Your task to perform on an android device: change text size in settings app Image 0: 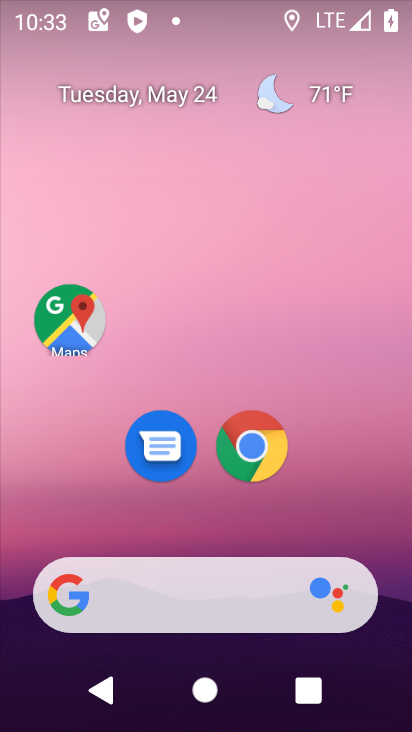
Step 0: drag from (343, 516) to (304, 49)
Your task to perform on an android device: change text size in settings app Image 1: 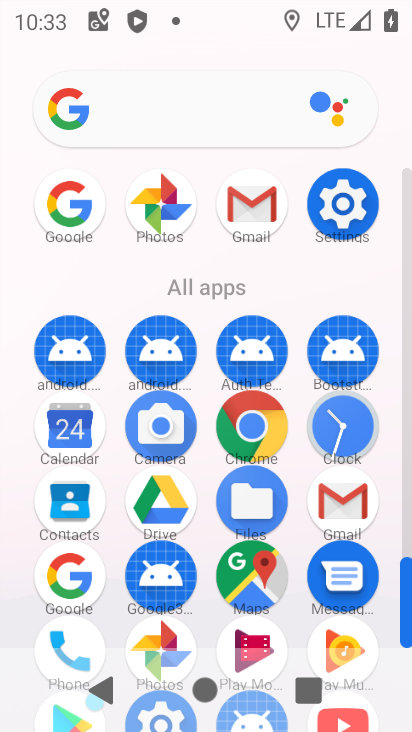
Step 1: click (342, 206)
Your task to perform on an android device: change text size in settings app Image 2: 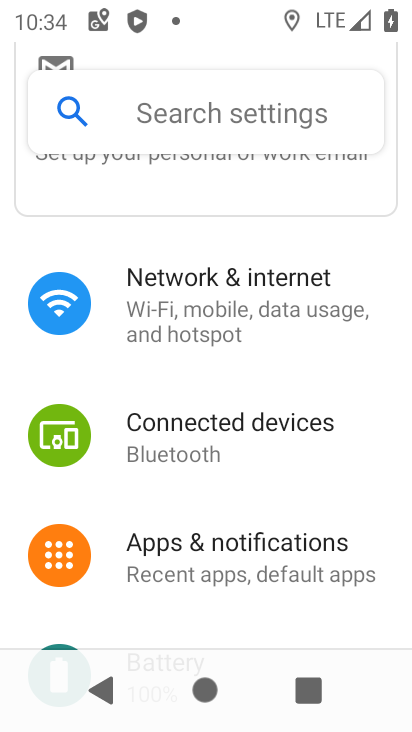
Step 2: drag from (182, 473) to (251, 364)
Your task to perform on an android device: change text size in settings app Image 3: 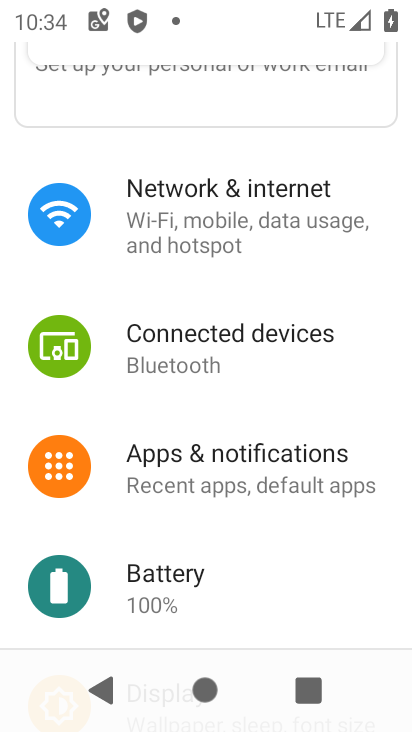
Step 3: drag from (205, 516) to (281, 395)
Your task to perform on an android device: change text size in settings app Image 4: 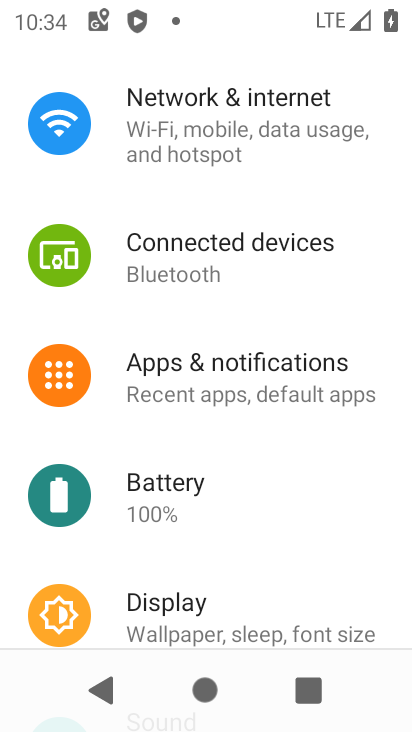
Step 4: drag from (212, 452) to (233, 355)
Your task to perform on an android device: change text size in settings app Image 5: 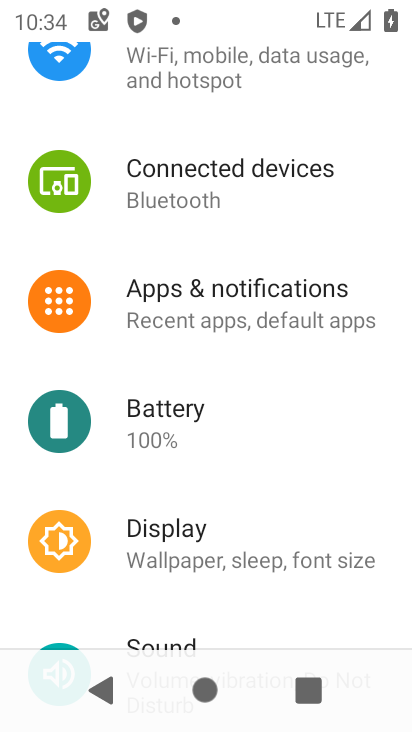
Step 5: drag from (182, 476) to (224, 393)
Your task to perform on an android device: change text size in settings app Image 6: 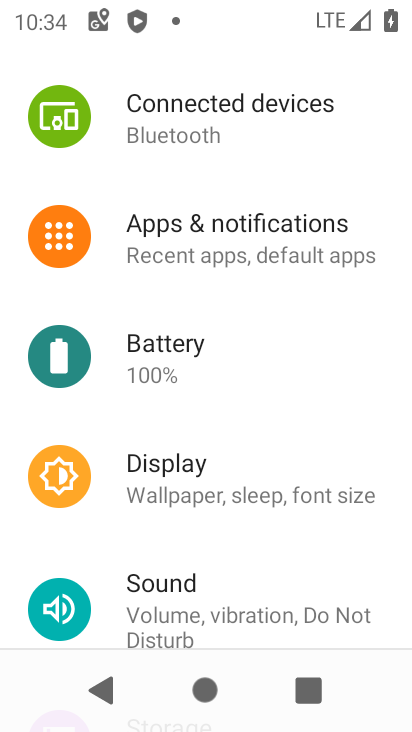
Step 6: drag from (166, 428) to (204, 328)
Your task to perform on an android device: change text size in settings app Image 7: 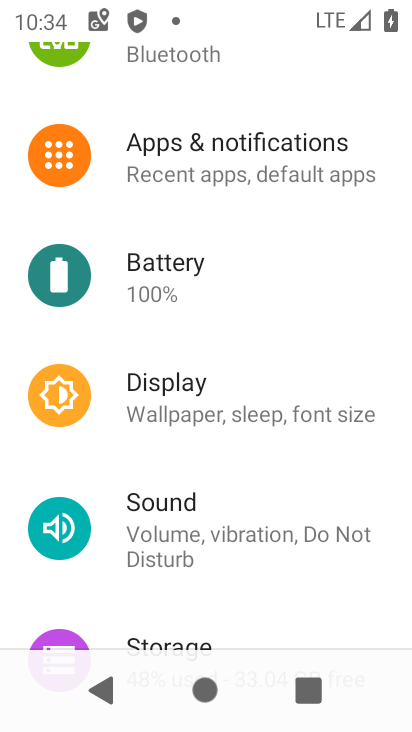
Step 7: drag from (136, 470) to (213, 366)
Your task to perform on an android device: change text size in settings app Image 8: 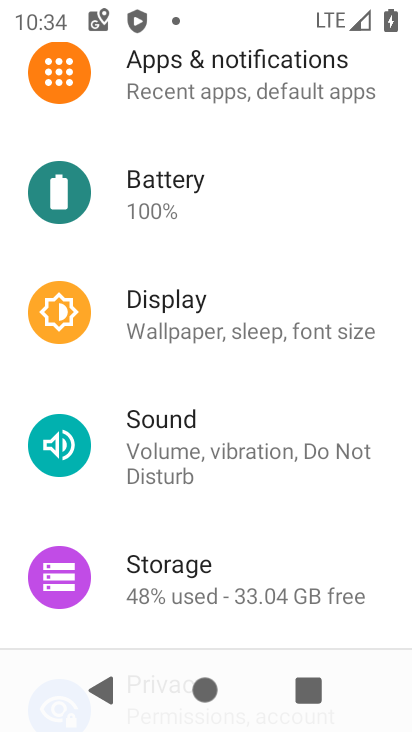
Step 8: drag from (140, 514) to (242, 391)
Your task to perform on an android device: change text size in settings app Image 9: 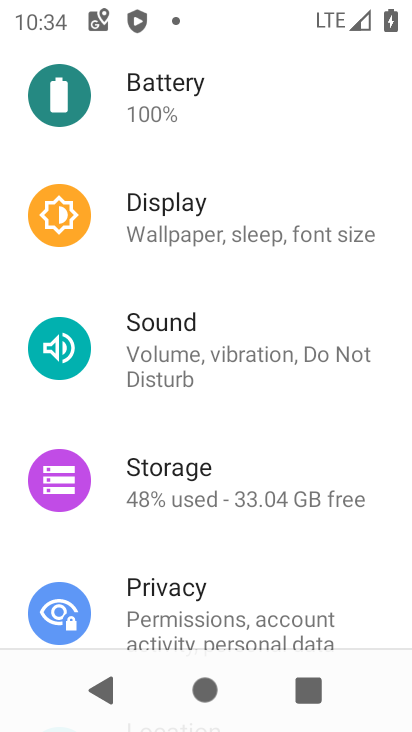
Step 9: drag from (137, 424) to (247, 300)
Your task to perform on an android device: change text size in settings app Image 10: 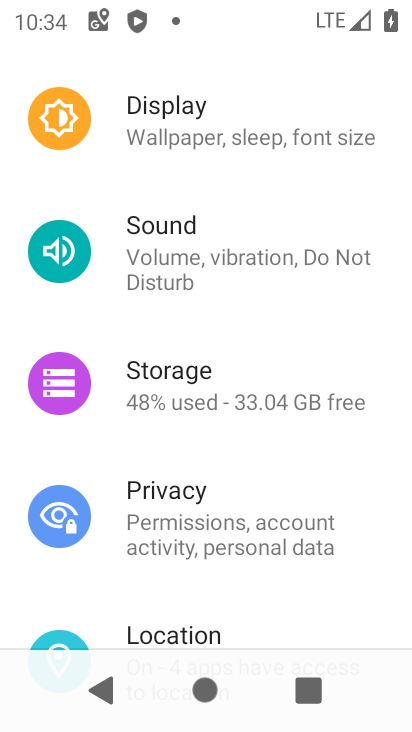
Step 10: drag from (134, 443) to (213, 344)
Your task to perform on an android device: change text size in settings app Image 11: 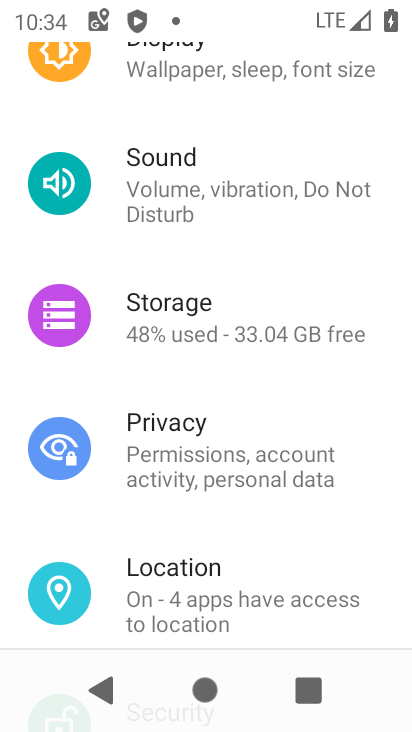
Step 11: drag from (134, 381) to (239, 267)
Your task to perform on an android device: change text size in settings app Image 12: 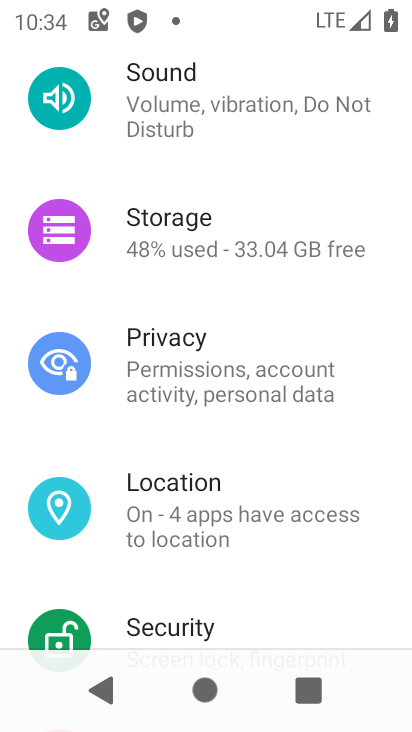
Step 12: drag from (133, 435) to (253, 295)
Your task to perform on an android device: change text size in settings app Image 13: 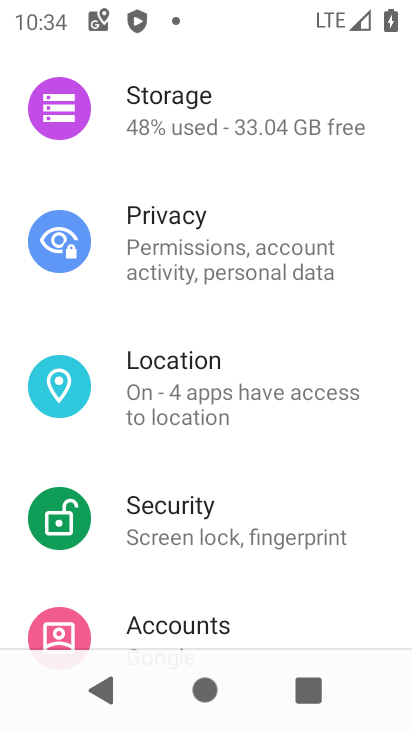
Step 13: drag from (124, 450) to (262, 303)
Your task to perform on an android device: change text size in settings app Image 14: 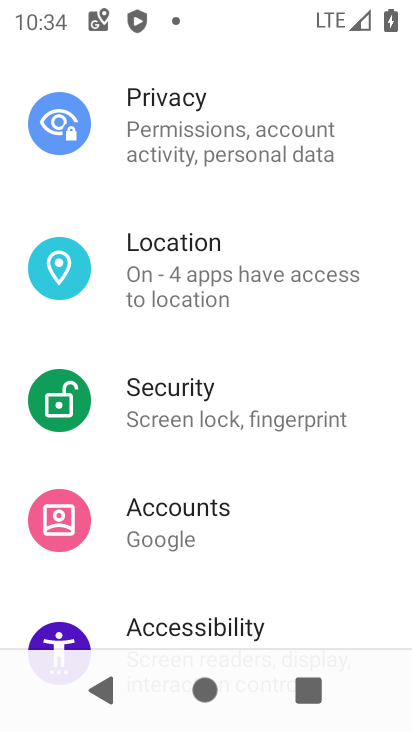
Step 14: drag from (108, 344) to (227, 203)
Your task to perform on an android device: change text size in settings app Image 15: 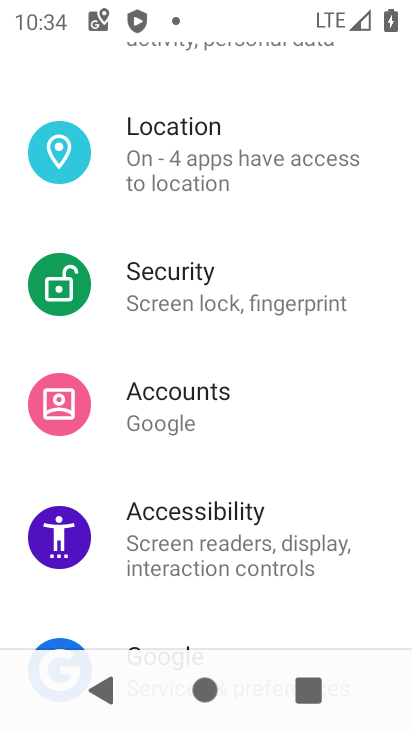
Step 15: drag from (105, 353) to (199, 235)
Your task to perform on an android device: change text size in settings app Image 16: 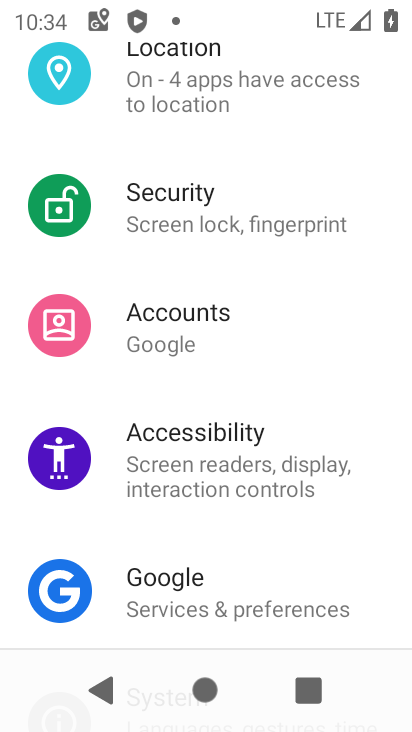
Step 16: click (165, 428)
Your task to perform on an android device: change text size in settings app Image 17: 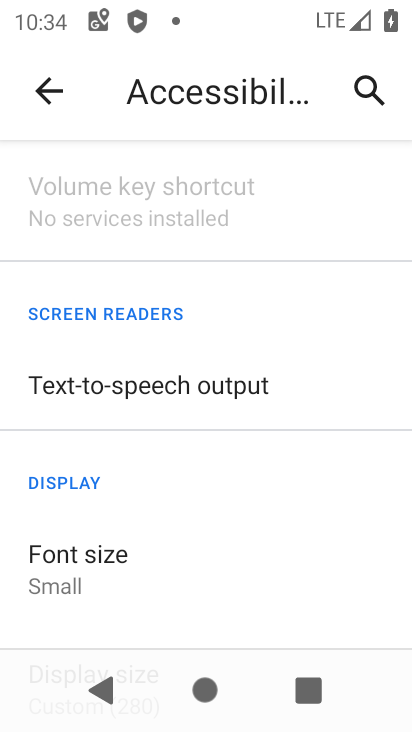
Step 17: click (72, 556)
Your task to perform on an android device: change text size in settings app Image 18: 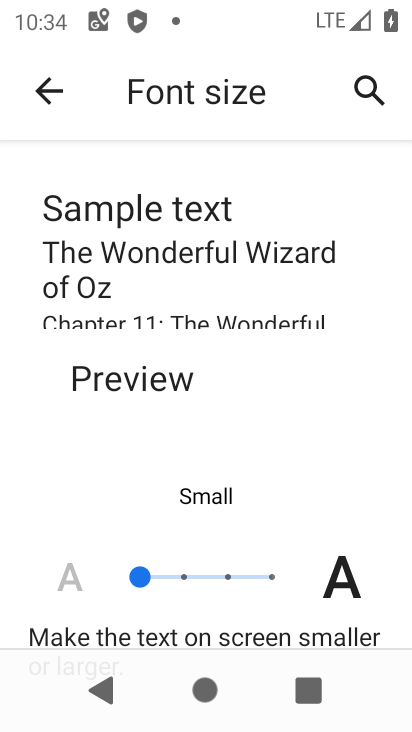
Step 18: click (184, 575)
Your task to perform on an android device: change text size in settings app Image 19: 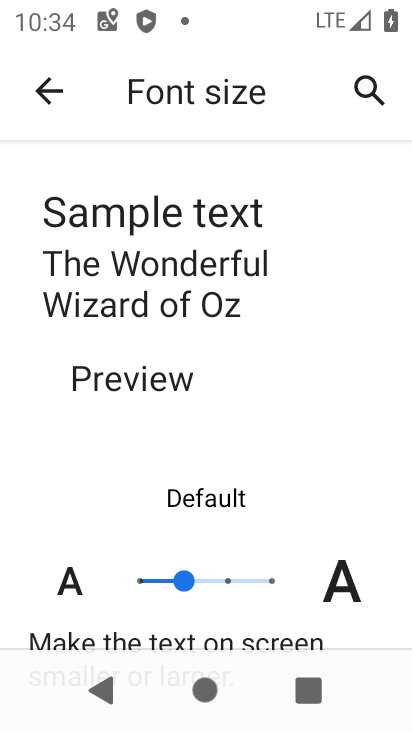
Step 19: task complete